Your task to perform on an android device: Open maps Image 0: 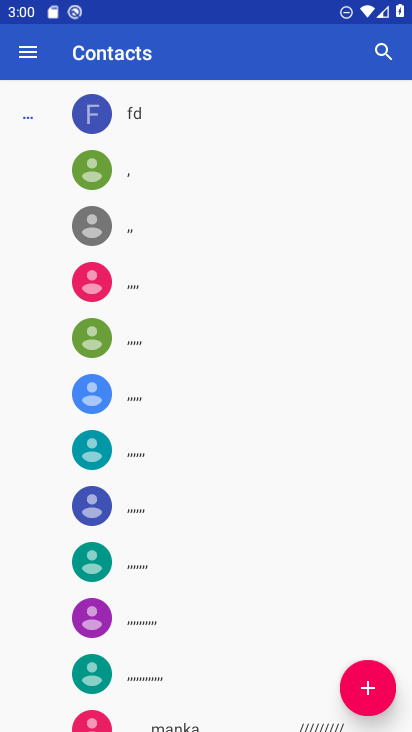
Step 0: press home button
Your task to perform on an android device: Open maps Image 1: 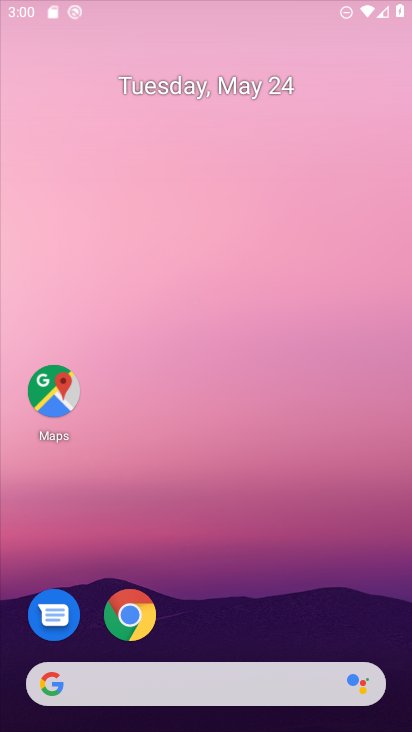
Step 1: drag from (240, 649) to (343, 105)
Your task to perform on an android device: Open maps Image 2: 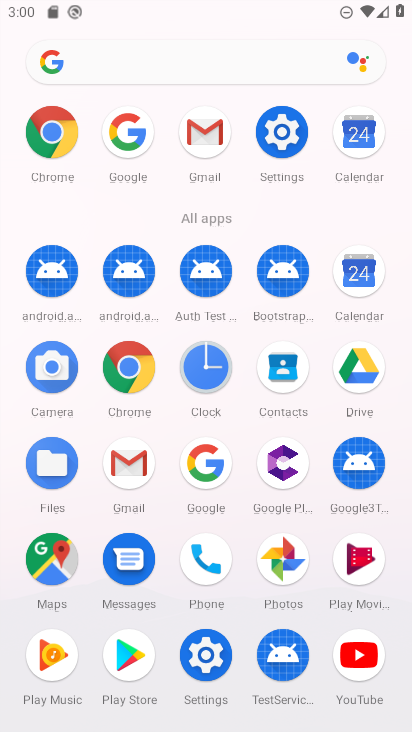
Step 2: click (55, 571)
Your task to perform on an android device: Open maps Image 3: 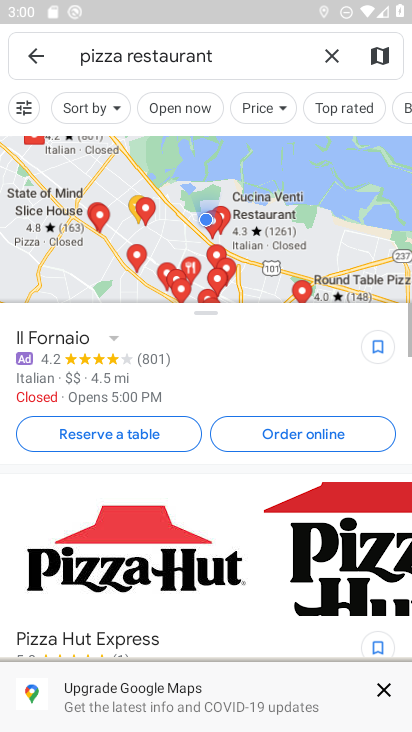
Step 3: click (330, 51)
Your task to perform on an android device: Open maps Image 4: 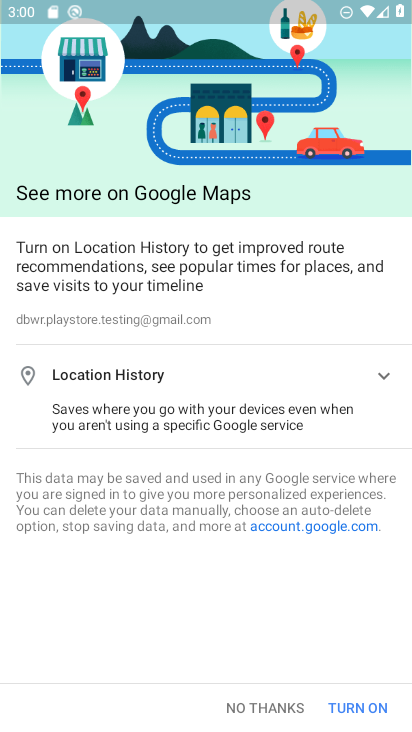
Step 4: click (349, 708)
Your task to perform on an android device: Open maps Image 5: 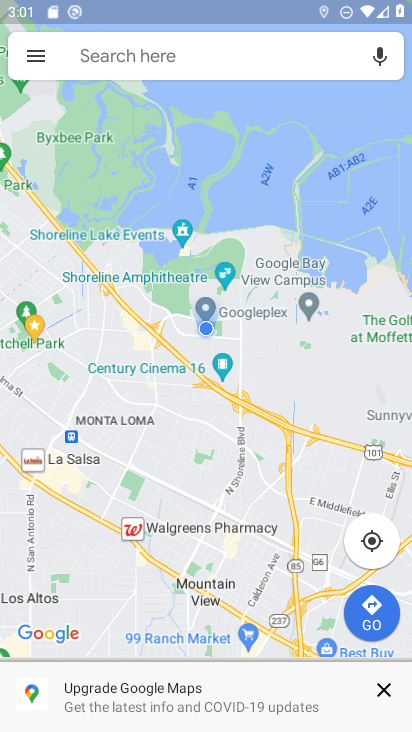
Step 5: click (245, 65)
Your task to perform on an android device: Open maps Image 6: 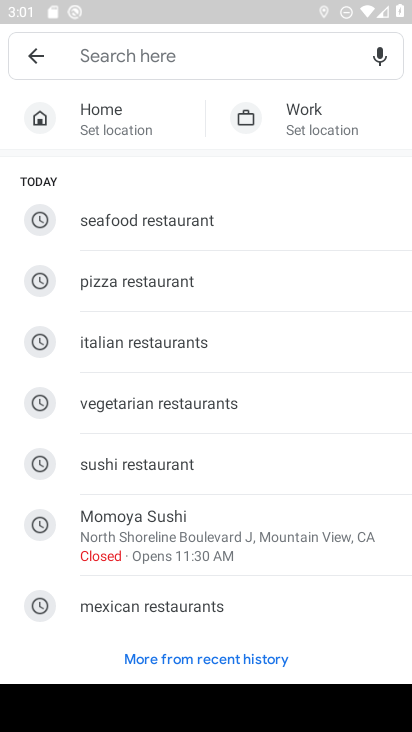
Step 6: click (44, 54)
Your task to perform on an android device: Open maps Image 7: 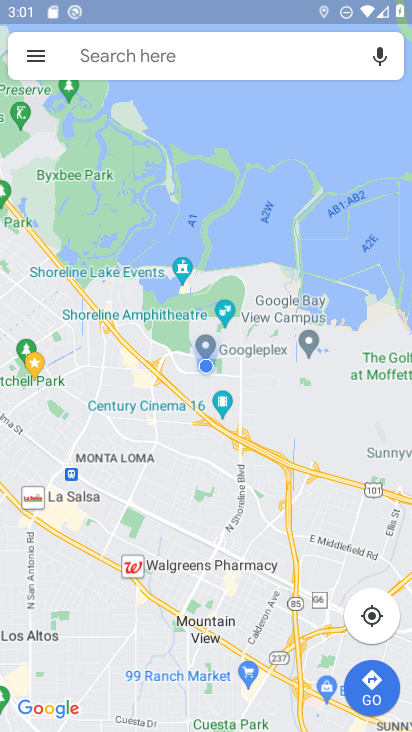
Step 7: task complete